Your task to perform on an android device: Open Reddit.com Image 0: 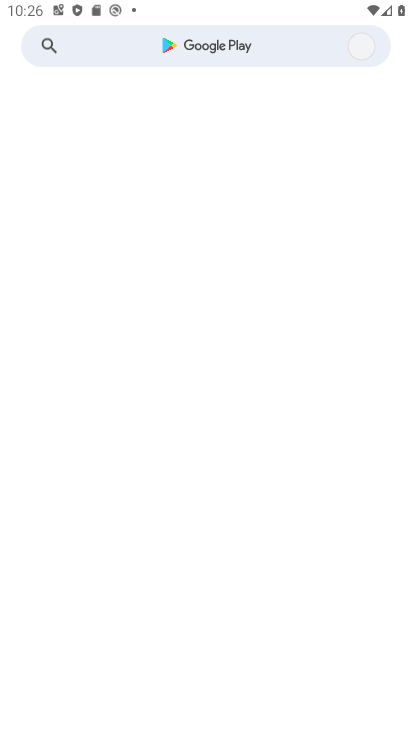
Step 0: press home button
Your task to perform on an android device: Open Reddit.com Image 1: 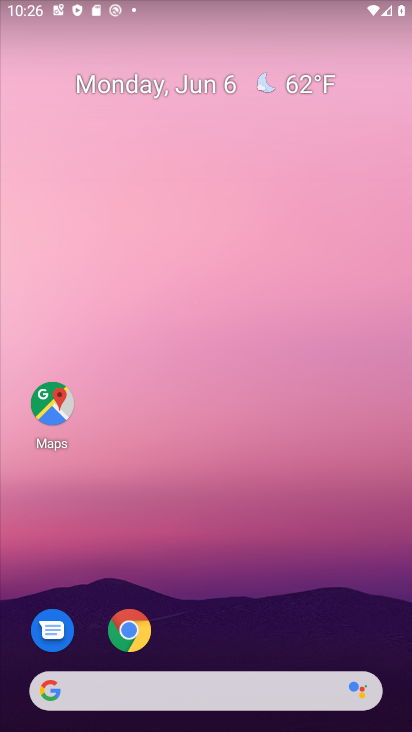
Step 1: drag from (352, 640) to (315, 229)
Your task to perform on an android device: Open Reddit.com Image 2: 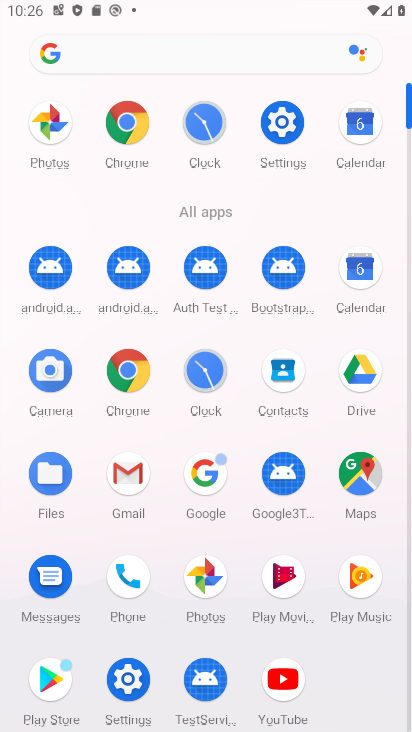
Step 2: click (128, 385)
Your task to perform on an android device: Open Reddit.com Image 3: 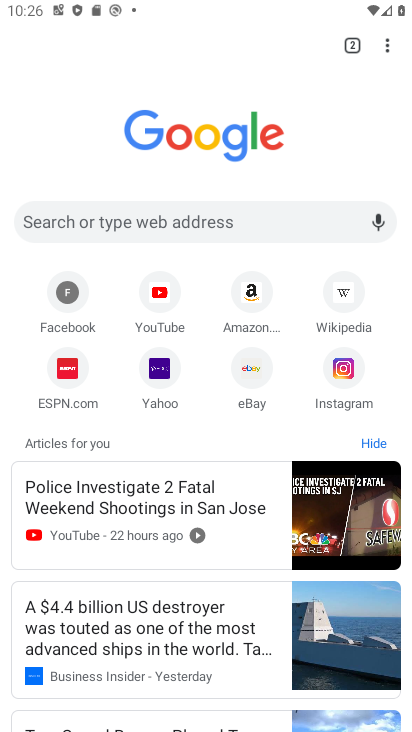
Step 3: click (203, 218)
Your task to perform on an android device: Open Reddit.com Image 4: 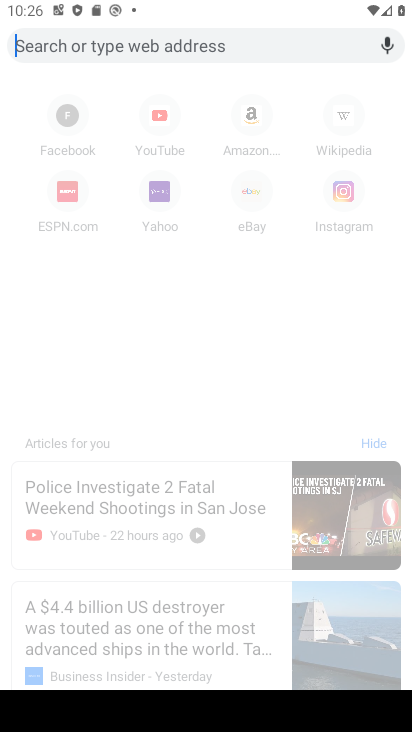
Step 4: type "reddit.com"
Your task to perform on an android device: Open Reddit.com Image 5: 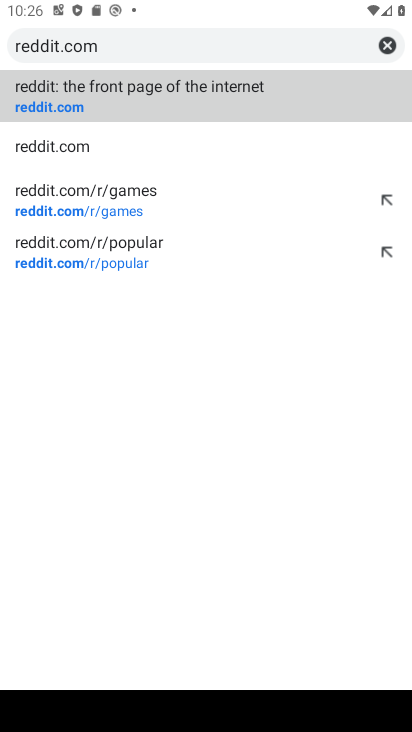
Step 5: click (133, 105)
Your task to perform on an android device: Open Reddit.com Image 6: 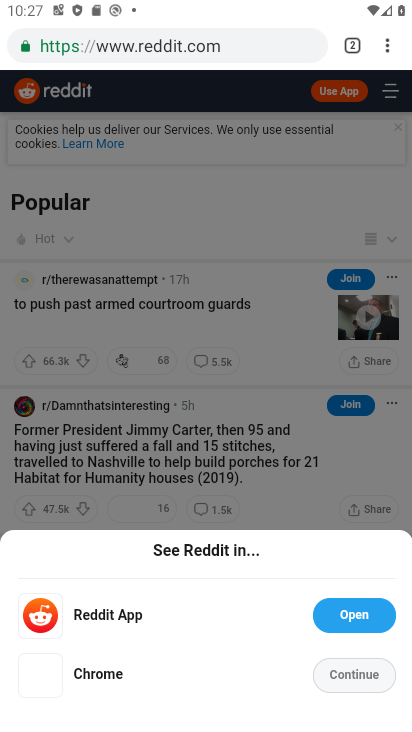
Step 6: task complete